Your task to perform on an android device: turn on sleep mode Image 0: 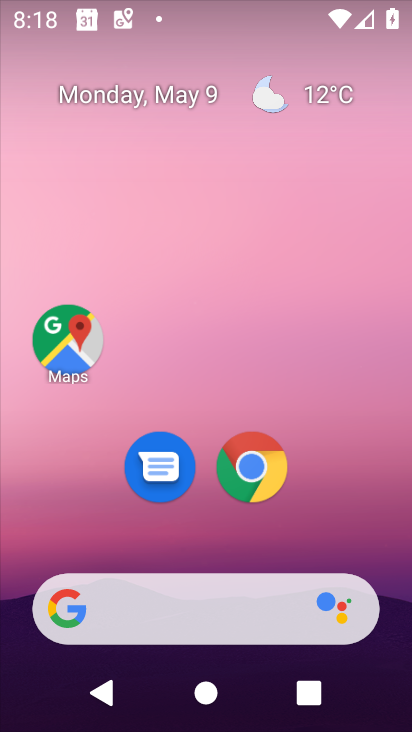
Step 0: drag from (352, 572) to (297, 1)
Your task to perform on an android device: turn on sleep mode Image 1: 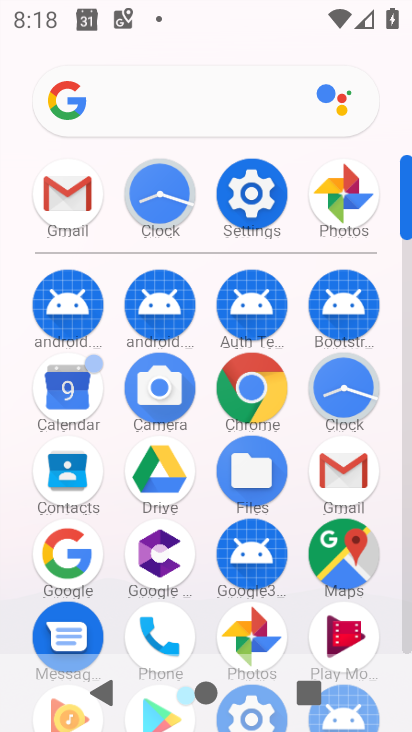
Step 1: click (260, 196)
Your task to perform on an android device: turn on sleep mode Image 2: 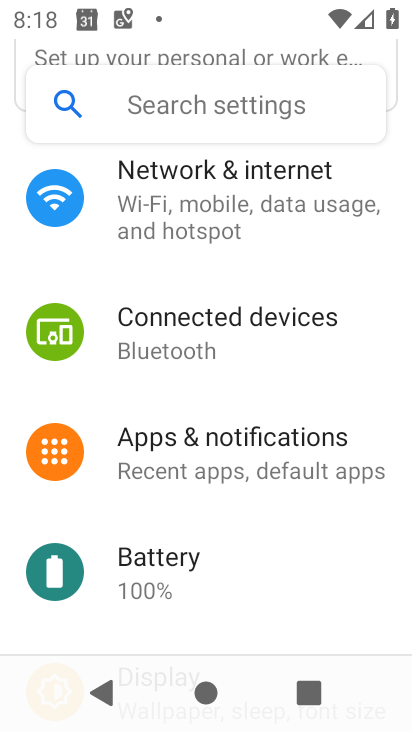
Step 2: drag from (296, 585) to (289, 266)
Your task to perform on an android device: turn on sleep mode Image 3: 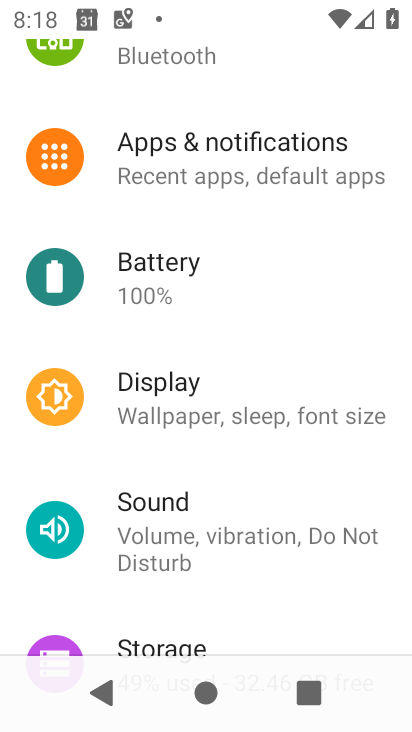
Step 3: click (133, 412)
Your task to perform on an android device: turn on sleep mode Image 4: 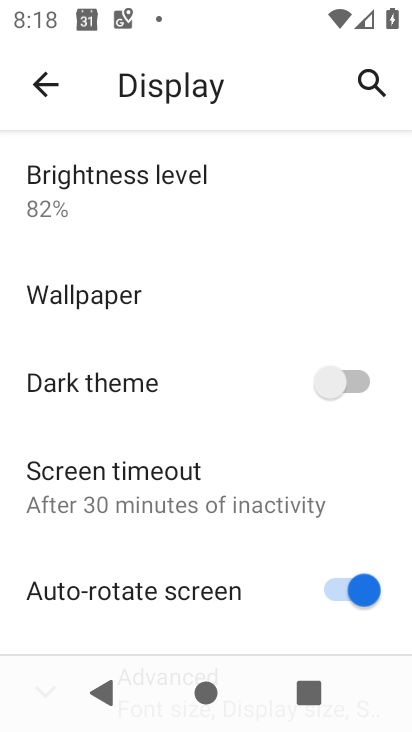
Step 4: drag from (212, 501) to (174, 171)
Your task to perform on an android device: turn on sleep mode Image 5: 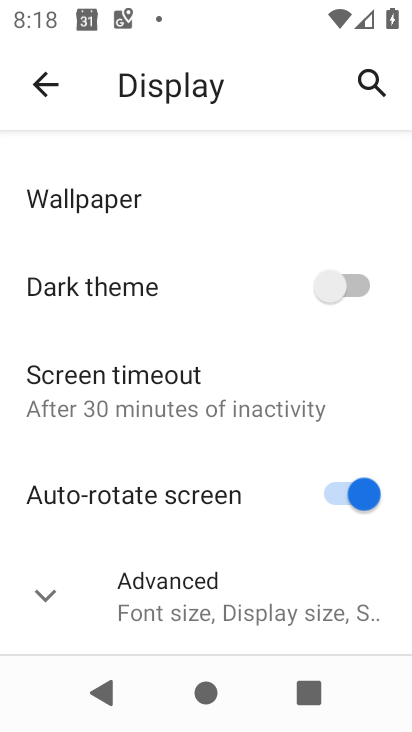
Step 5: click (40, 609)
Your task to perform on an android device: turn on sleep mode Image 6: 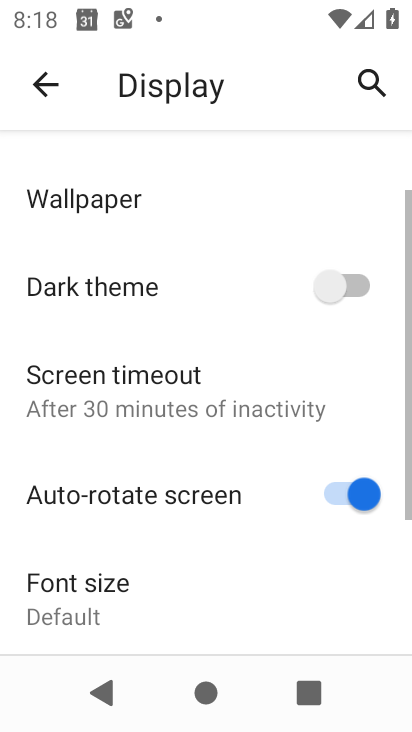
Step 6: task complete